Your task to perform on an android device: Search for Italian restaurants on Maps Image 0: 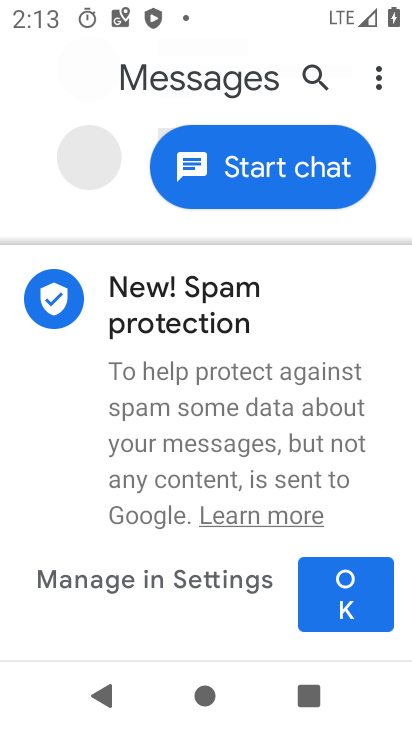
Step 0: press home button
Your task to perform on an android device: Search for Italian restaurants on Maps Image 1: 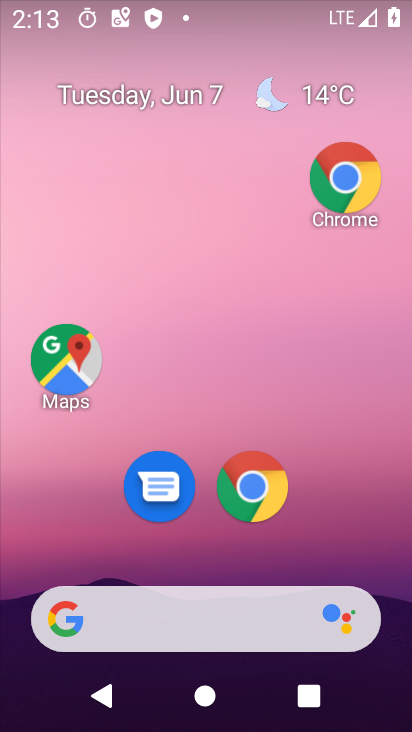
Step 1: click (68, 340)
Your task to perform on an android device: Search for Italian restaurants on Maps Image 2: 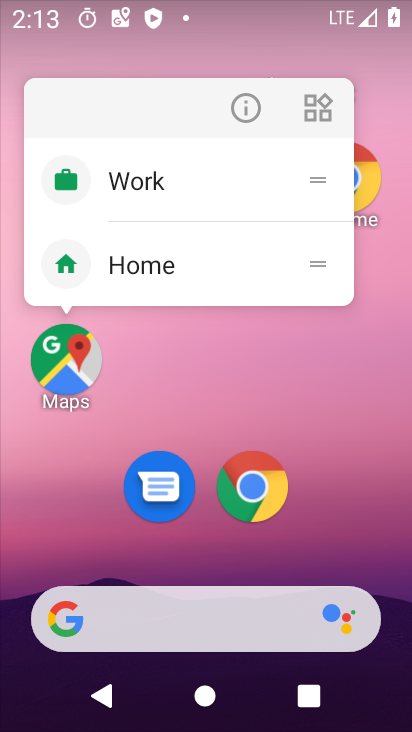
Step 2: click (65, 355)
Your task to perform on an android device: Search for Italian restaurants on Maps Image 3: 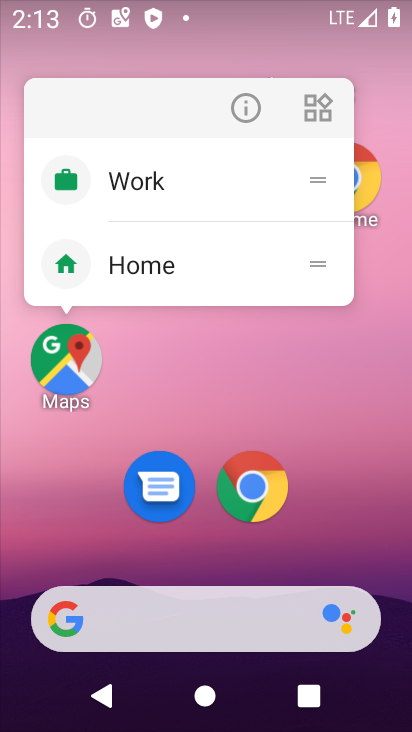
Step 3: click (86, 391)
Your task to perform on an android device: Search for Italian restaurants on Maps Image 4: 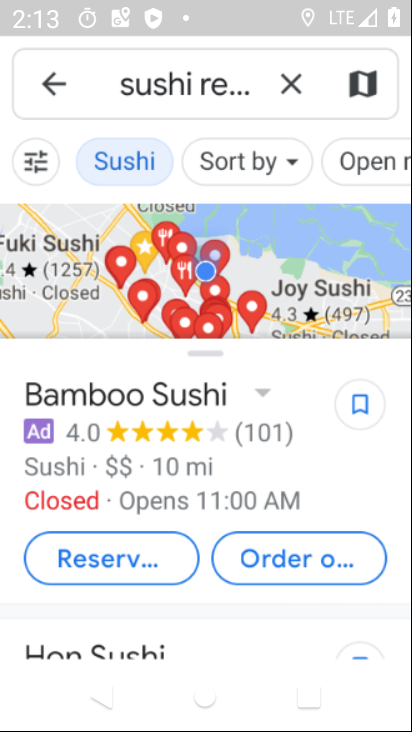
Step 4: click (295, 89)
Your task to perform on an android device: Search for Italian restaurants on Maps Image 5: 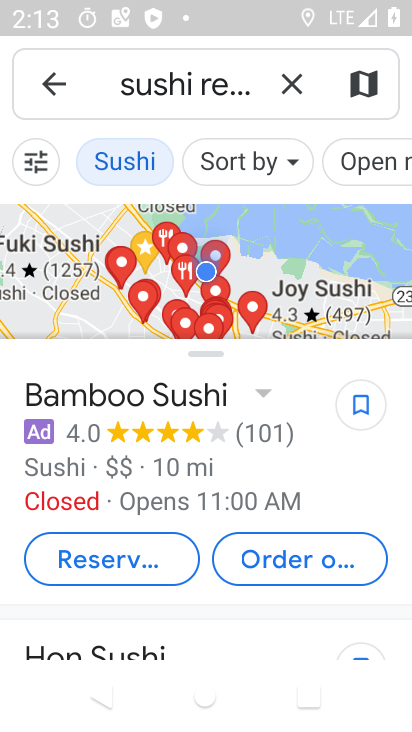
Step 5: click (289, 88)
Your task to perform on an android device: Search for Italian restaurants on Maps Image 6: 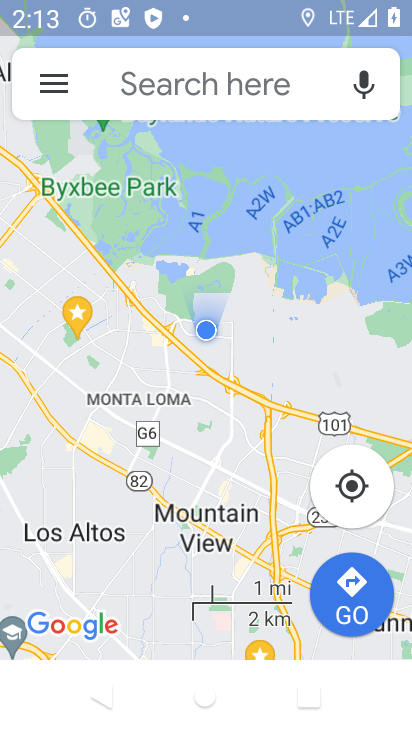
Step 6: click (264, 95)
Your task to perform on an android device: Search for Italian restaurants on Maps Image 7: 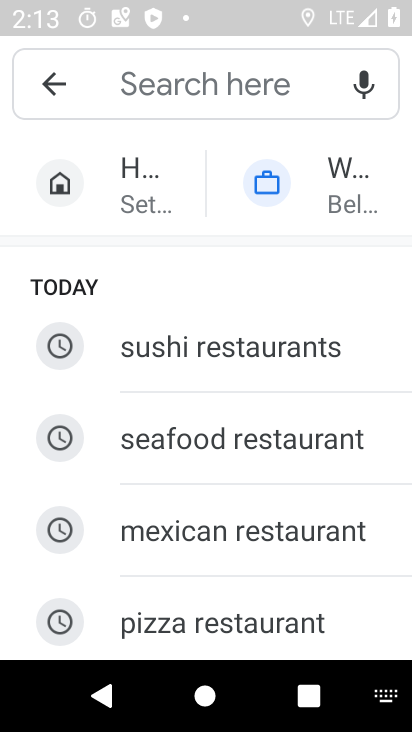
Step 7: type "Italian restaurants"
Your task to perform on an android device: Search for Italian restaurants on Maps Image 8: 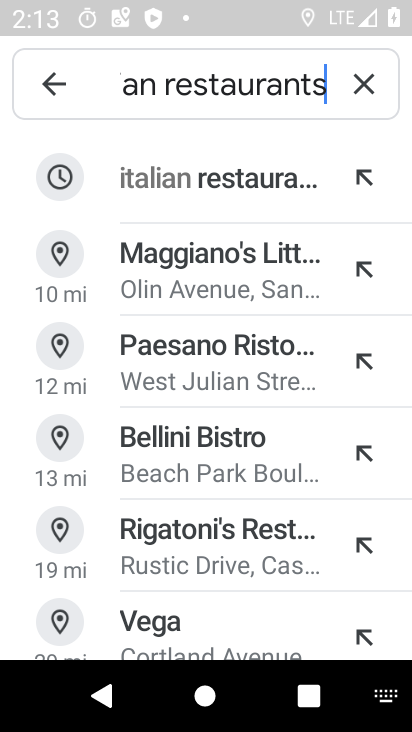
Step 8: click (222, 177)
Your task to perform on an android device: Search for Italian restaurants on Maps Image 9: 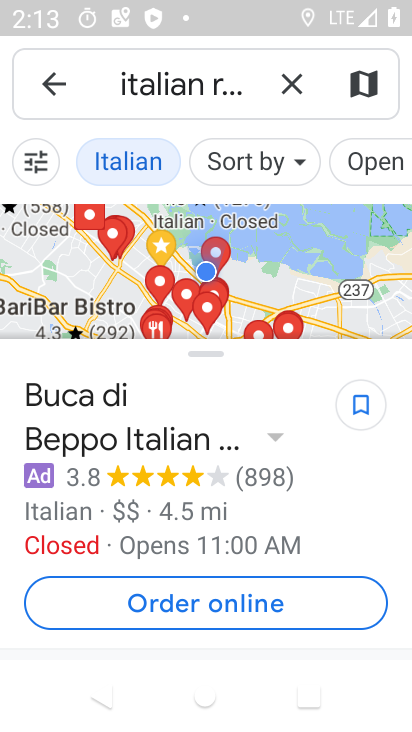
Step 9: task complete